Your task to perform on an android device: What's on my calendar tomorrow? Image 0: 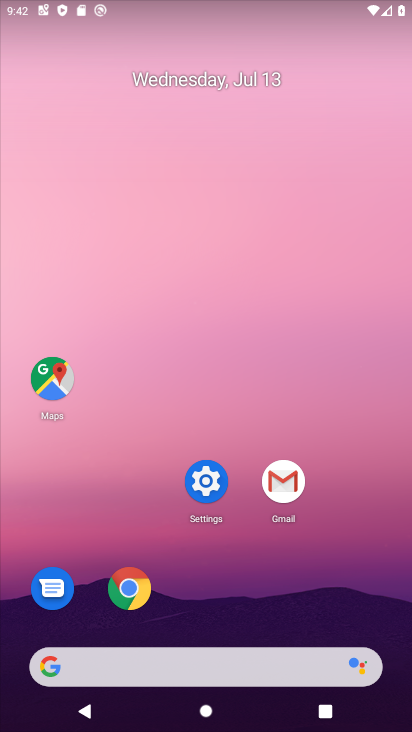
Step 0: drag from (390, 666) to (356, 125)
Your task to perform on an android device: What's on my calendar tomorrow? Image 1: 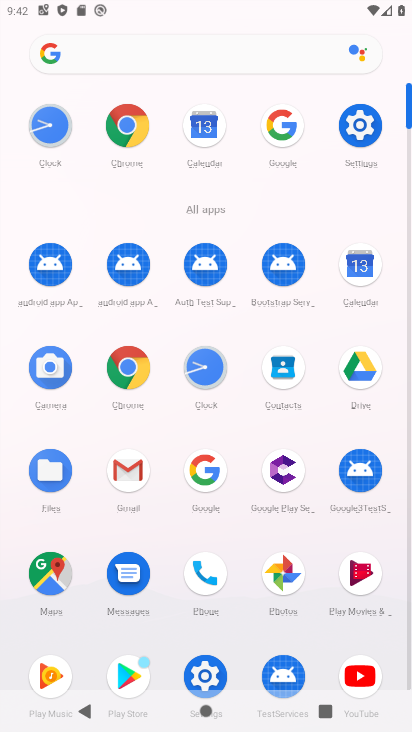
Step 1: click (351, 264)
Your task to perform on an android device: What's on my calendar tomorrow? Image 2: 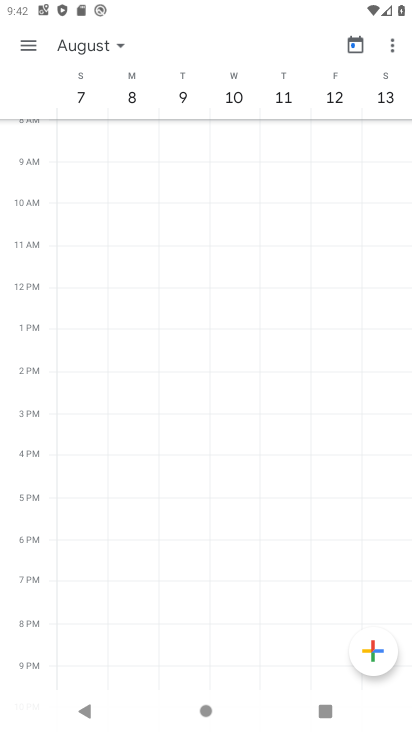
Step 2: press home button
Your task to perform on an android device: What's on my calendar tomorrow? Image 3: 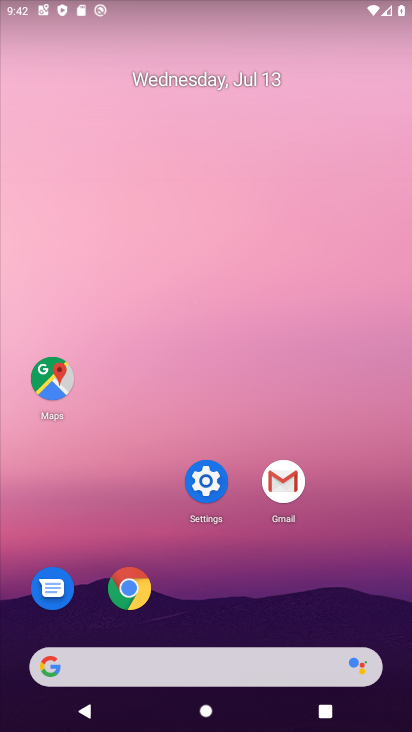
Step 3: drag from (401, 698) to (356, 110)
Your task to perform on an android device: What's on my calendar tomorrow? Image 4: 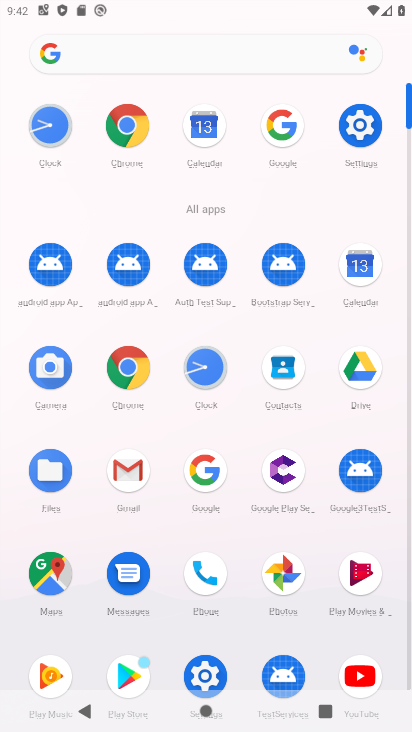
Step 4: click (346, 275)
Your task to perform on an android device: What's on my calendar tomorrow? Image 5: 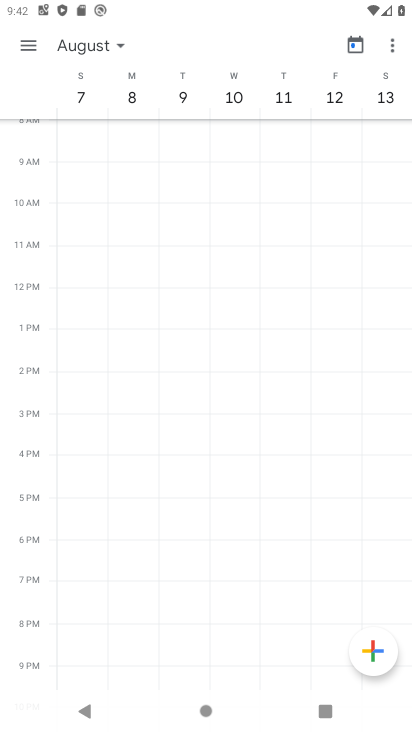
Step 5: click (115, 38)
Your task to perform on an android device: What's on my calendar tomorrow? Image 6: 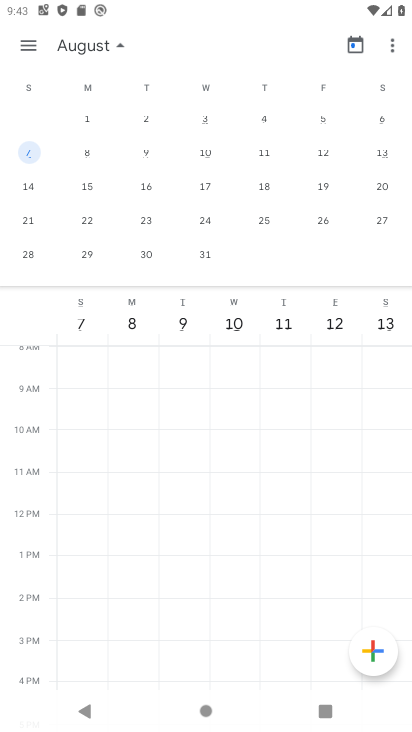
Step 6: drag from (46, 106) to (404, 116)
Your task to perform on an android device: What's on my calendar tomorrow? Image 7: 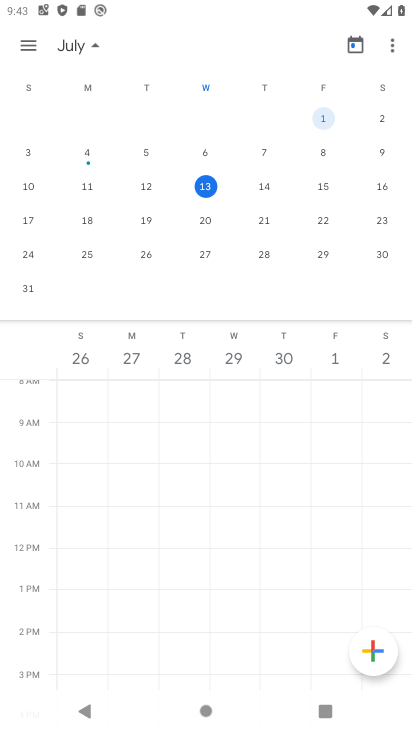
Step 7: click (261, 181)
Your task to perform on an android device: What's on my calendar tomorrow? Image 8: 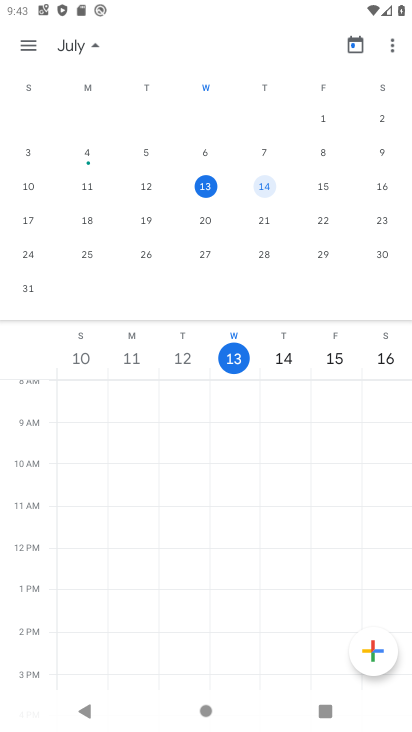
Step 8: click (22, 42)
Your task to perform on an android device: What's on my calendar tomorrow? Image 9: 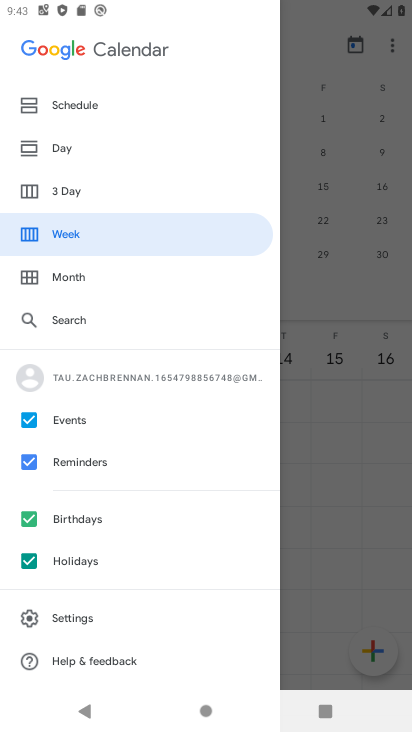
Step 9: click (53, 150)
Your task to perform on an android device: What's on my calendar tomorrow? Image 10: 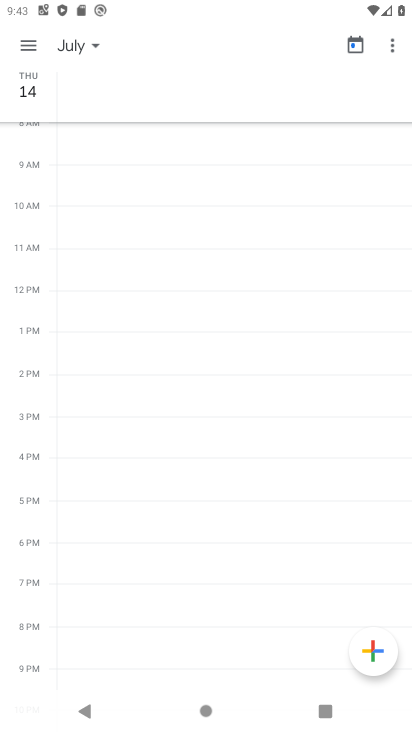
Step 10: click (39, 40)
Your task to perform on an android device: What's on my calendar tomorrow? Image 11: 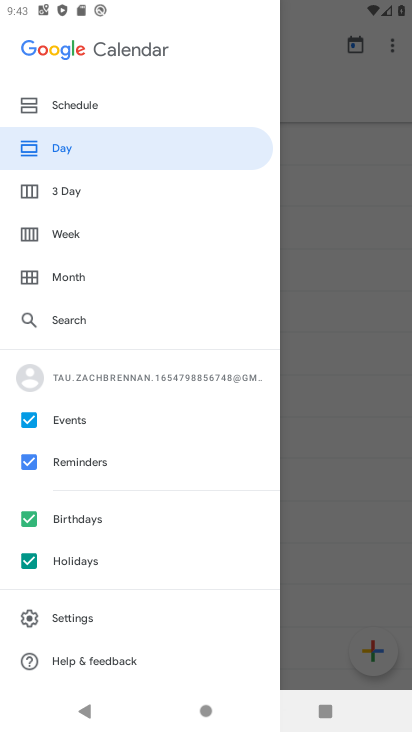
Step 11: click (85, 102)
Your task to perform on an android device: What's on my calendar tomorrow? Image 12: 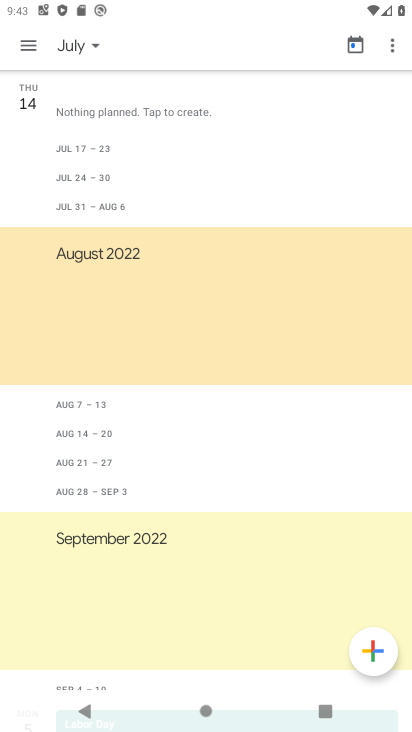
Step 12: task complete